Your task to perform on an android device: Go to ESPN.com Image 0: 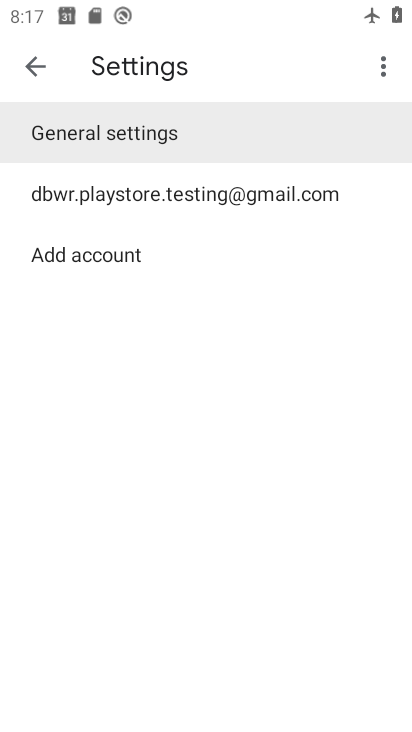
Step 0: press home button
Your task to perform on an android device: Go to ESPN.com Image 1: 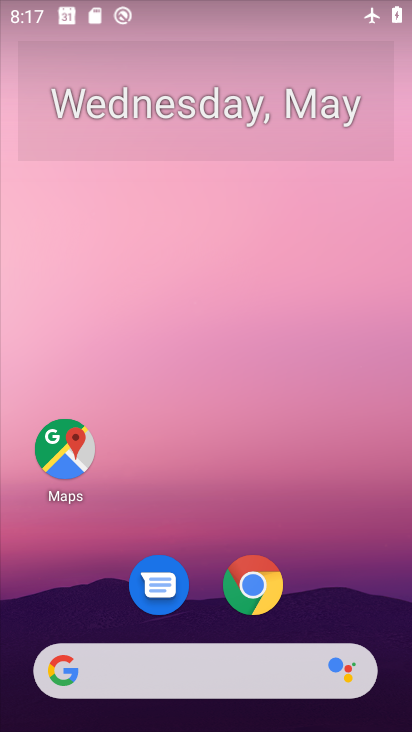
Step 1: click (209, 682)
Your task to perform on an android device: Go to ESPN.com Image 2: 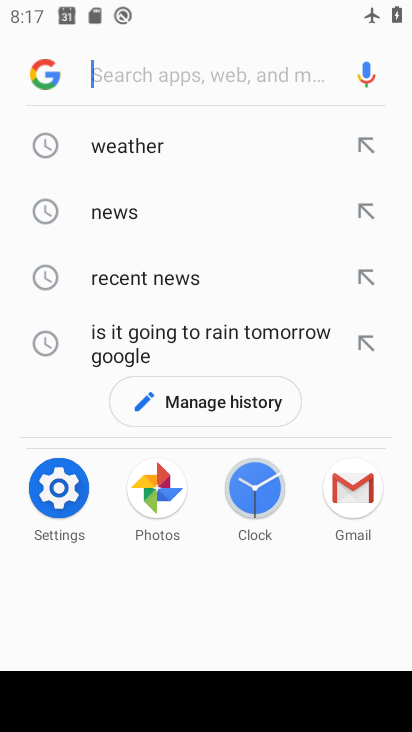
Step 2: type "espn.com"
Your task to perform on an android device: Go to ESPN.com Image 3: 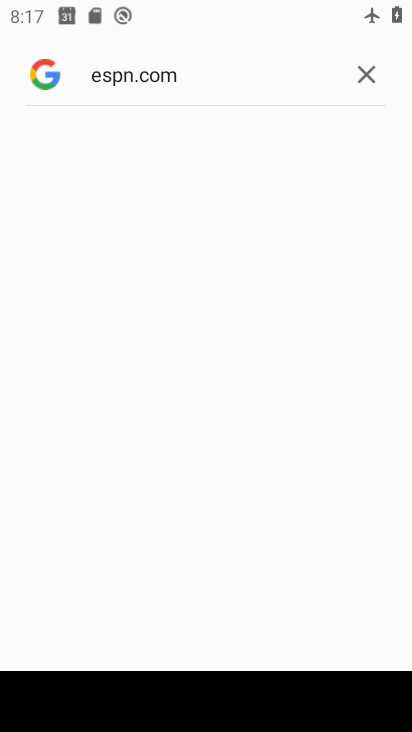
Step 3: task complete